Your task to perform on an android device: toggle wifi Image 0: 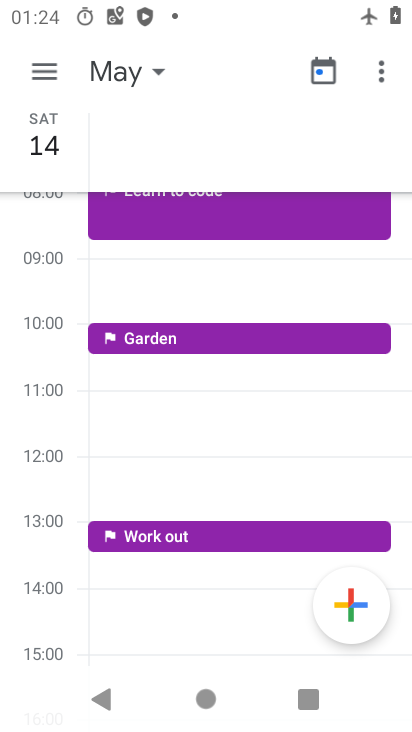
Step 0: press home button
Your task to perform on an android device: toggle wifi Image 1: 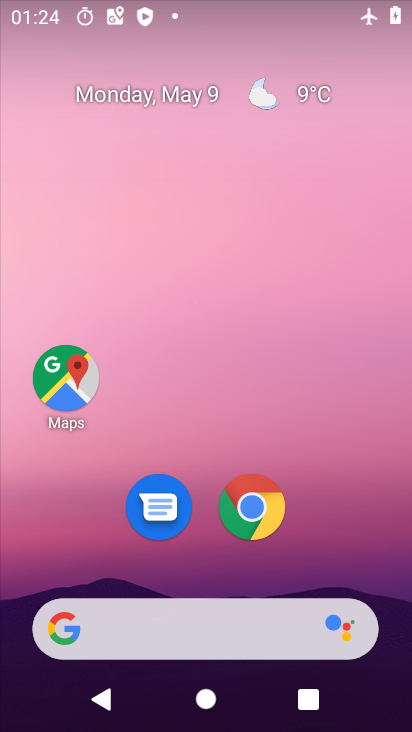
Step 1: drag from (228, 730) to (213, 241)
Your task to perform on an android device: toggle wifi Image 2: 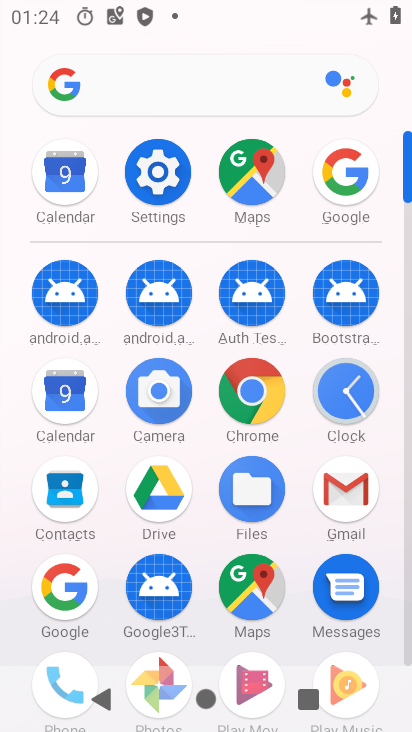
Step 2: click (157, 159)
Your task to perform on an android device: toggle wifi Image 3: 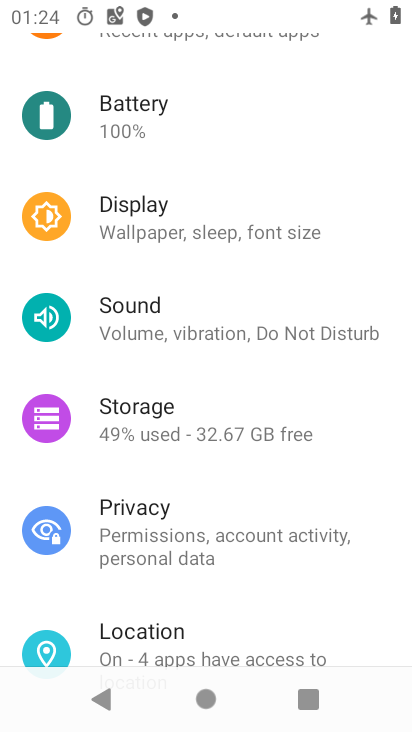
Step 3: drag from (342, 104) to (353, 525)
Your task to perform on an android device: toggle wifi Image 4: 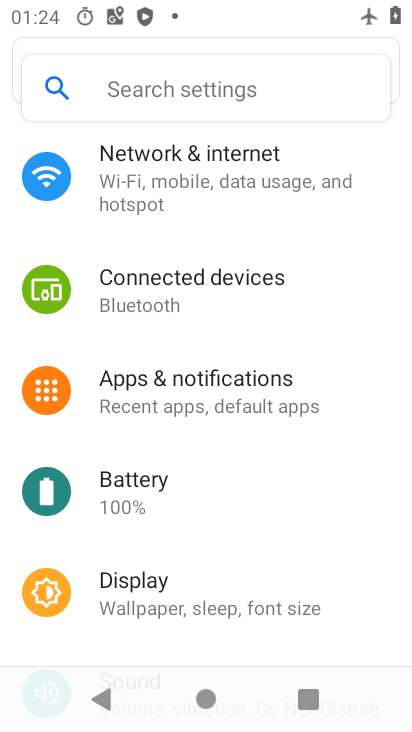
Step 4: drag from (339, 141) to (325, 601)
Your task to perform on an android device: toggle wifi Image 5: 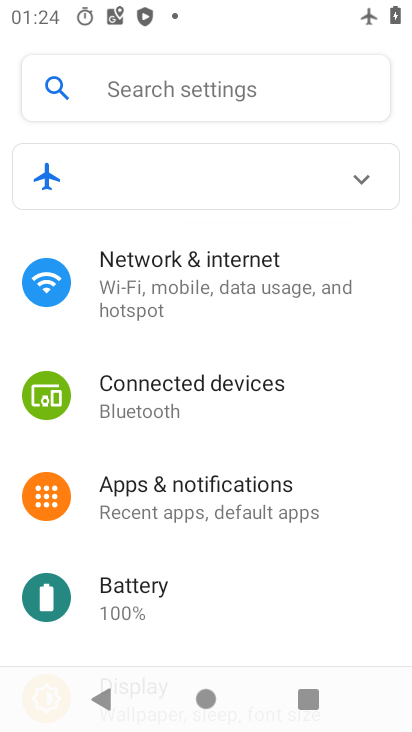
Step 5: click (148, 275)
Your task to perform on an android device: toggle wifi Image 6: 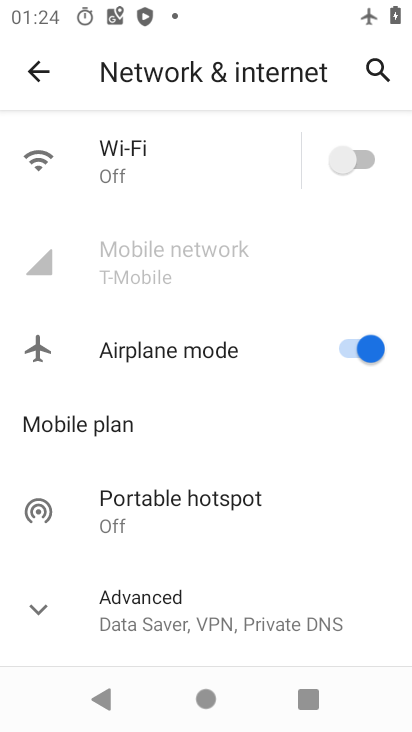
Step 6: click (362, 154)
Your task to perform on an android device: toggle wifi Image 7: 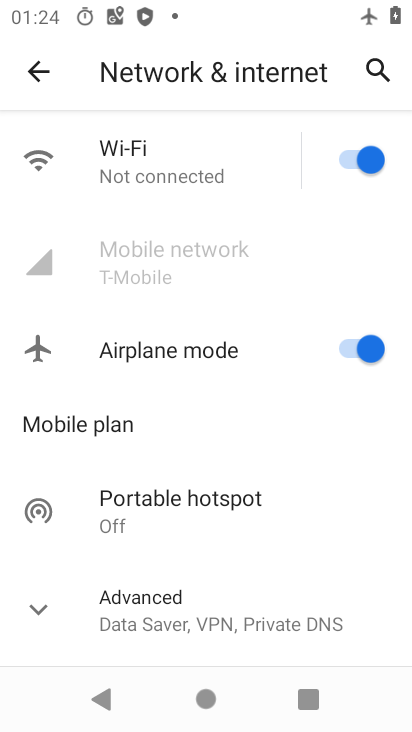
Step 7: task complete